Your task to perform on an android device: add a label to a message in the gmail app Image 0: 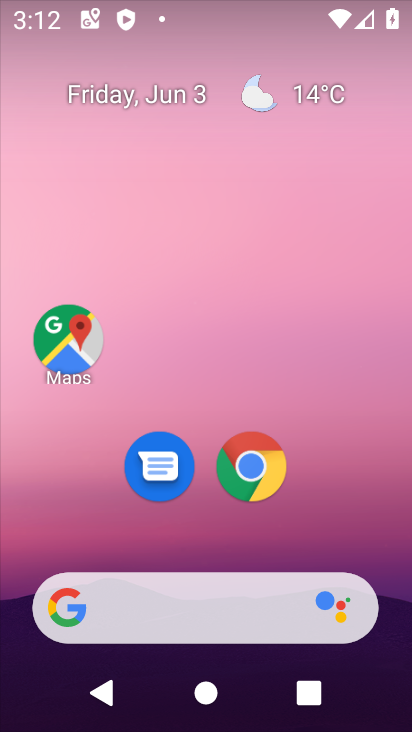
Step 0: drag from (329, 496) to (227, 14)
Your task to perform on an android device: add a label to a message in the gmail app Image 1: 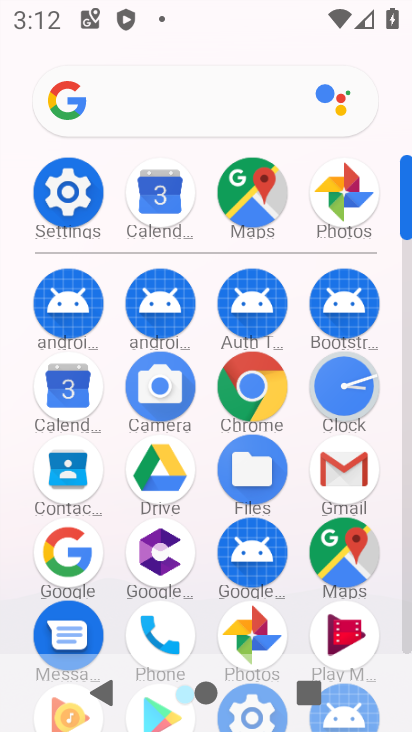
Step 1: click (333, 479)
Your task to perform on an android device: add a label to a message in the gmail app Image 2: 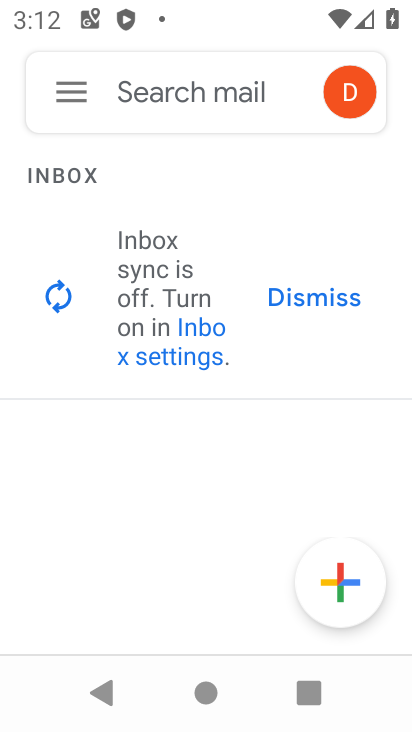
Step 2: click (69, 86)
Your task to perform on an android device: add a label to a message in the gmail app Image 3: 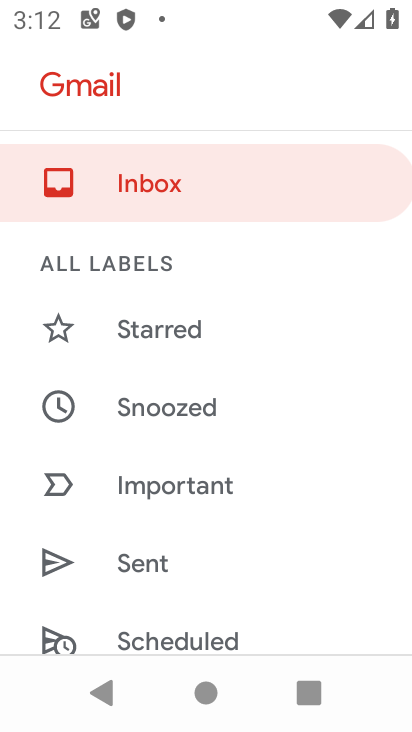
Step 3: drag from (262, 592) to (387, 326)
Your task to perform on an android device: add a label to a message in the gmail app Image 4: 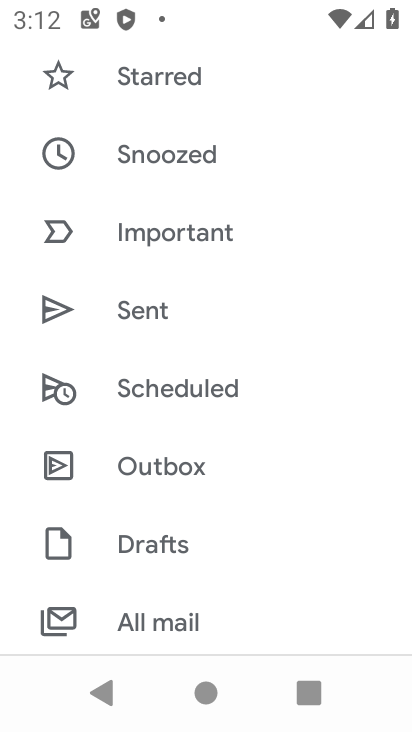
Step 4: click (194, 631)
Your task to perform on an android device: add a label to a message in the gmail app Image 5: 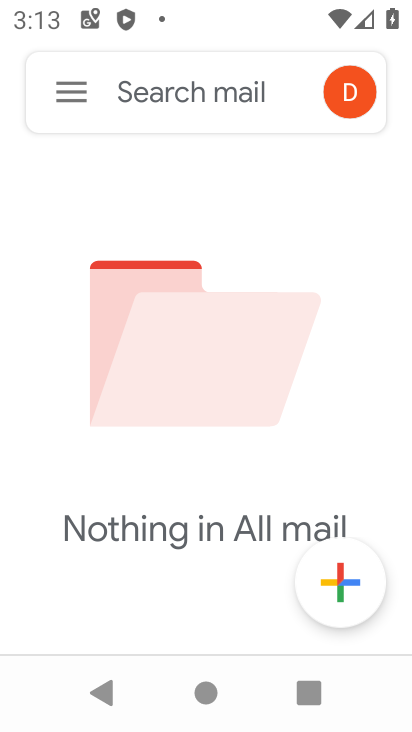
Step 5: task complete